Your task to perform on an android device: visit the assistant section in the google photos Image 0: 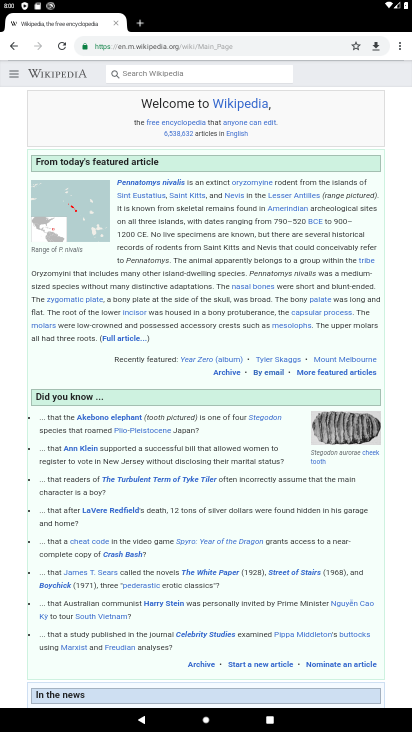
Step 0: press home button
Your task to perform on an android device: visit the assistant section in the google photos Image 1: 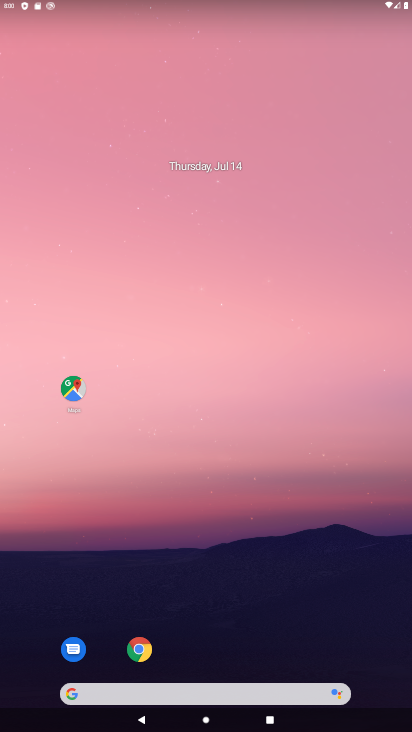
Step 1: drag from (223, 677) to (322, 299)
Your task to perform on an android device: visit the assistant section in the google photos Image 2: 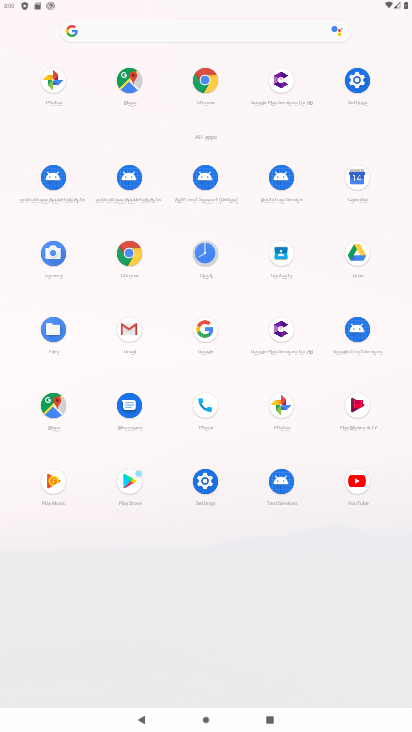
Step 2: click (284, 403)
Your task to perform on an android device: visit the assistant section in the google photos Image 3: 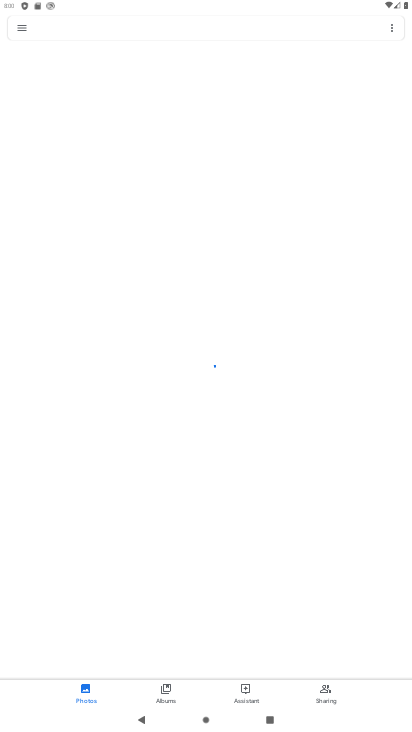
Step 3: click (250, 692)
Your task to perform on an android device: visit the assistant section in the google photos Image 4: 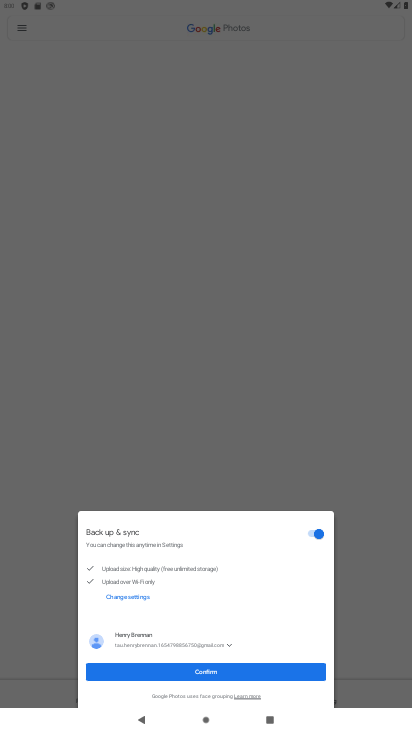
Step 4: click (195, 675)
Your task to perform on an android device: visit the assistant section in the google photos Image 5: 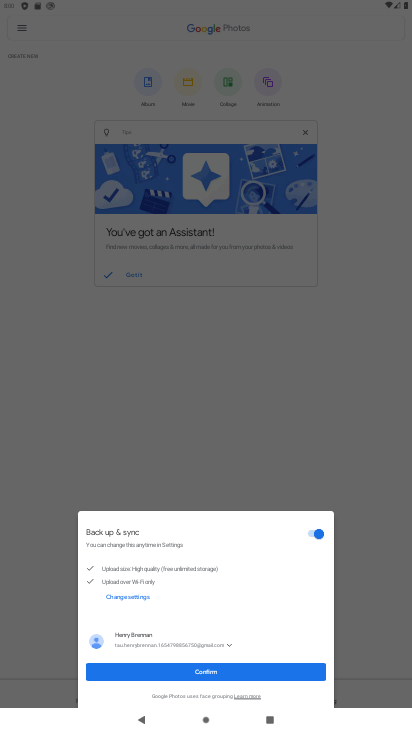
Step 5: click (195, 675)
Your task to perform on an android device: visit the assistant section in the google photos Image 6: 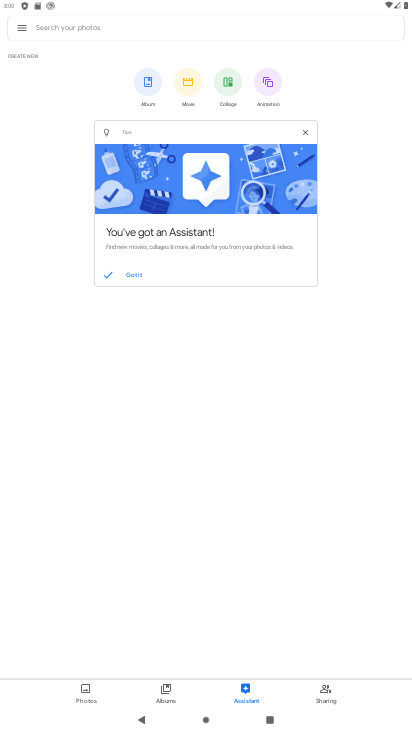
Step 6: task complete